Your task to perform on an android device: Show me some nice wallpapers for my phone Image 0: 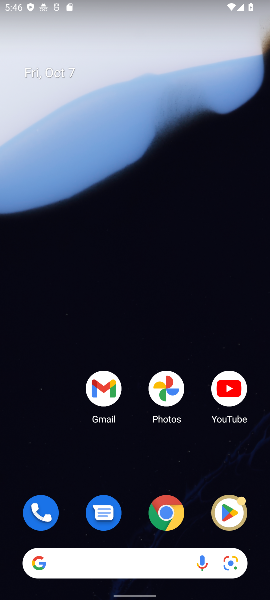
Step 0: click (124, 563)
Your task to perform on an android device: Show me some nice wallpapers for my phone Image 1: 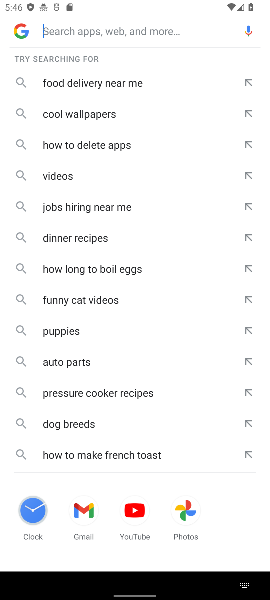
Step 1: type "how mshow me some nice wallpapers for my phone"
Your task to perform on an android device: Show me some nice wallpapers for my phone Image 2: 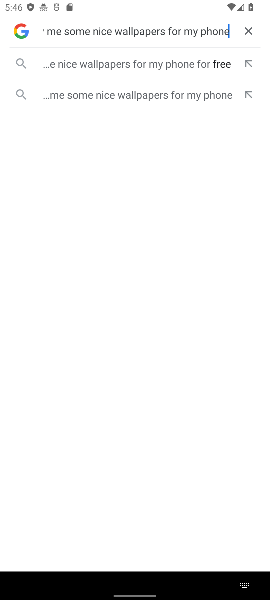
Step 2: click (133, 96)
Your task to perform on an android device: Show me some nice wallpapers for my phone Image 3: 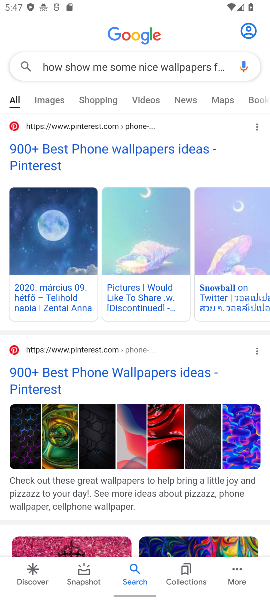
Step 3: click (81, 151)
Your task to perform on an android device: Show me some nice wallpapers for my phone Image 4: 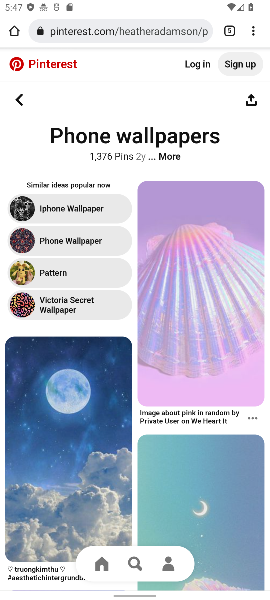
Step 4: task complete